Your task to perform on an android device: see creations saved in the google photos Image 0: 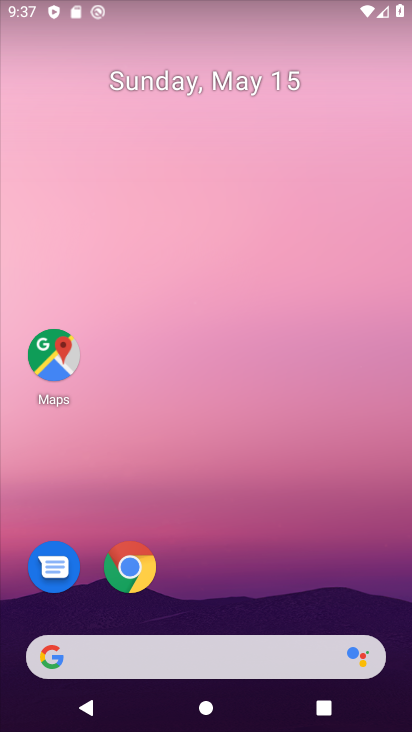
Step 0: drag from (270, 571) to (270, 37)
Your task to perform on an android device: see creations saved in the google photos Image 1: 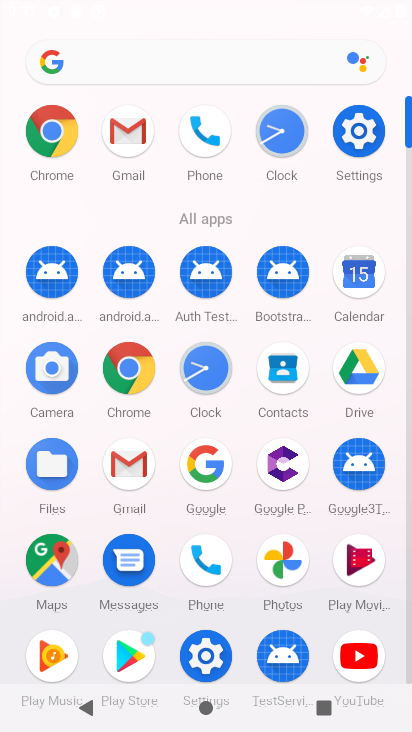
Step 1: click (286, 559)
Your task to perform on an android device: see creations saved in the google photos Image 2: 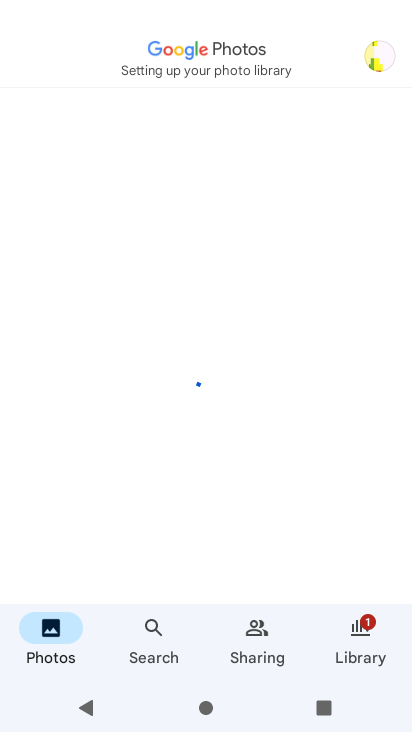
Step 2: click (152, 623)
Your task to perform on an android device: see creations saved in the google photos Image 3: 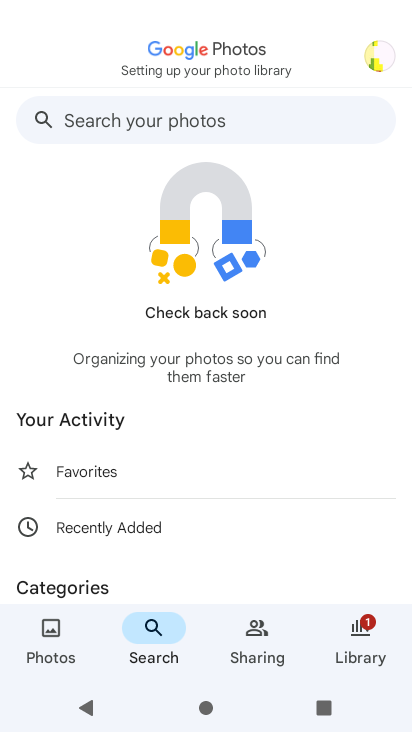
Step 3: click (173, 120)
Your task to perform on an android device: see creations saved in the google photos Image 4: 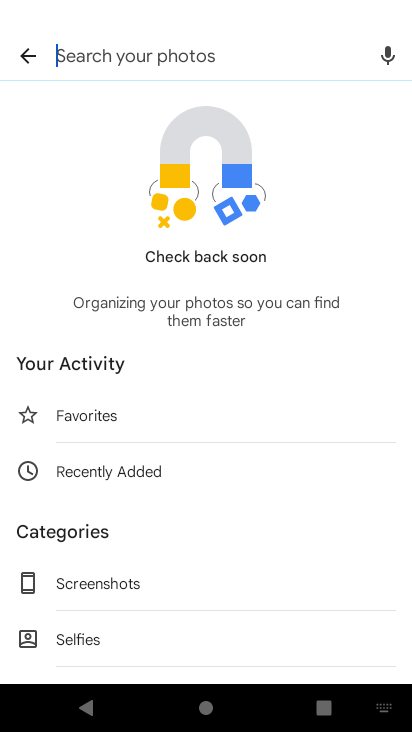
Step 4: drag from (181, 522) to (243, 65)
Your task to perform on an android device: see creations saved in the google photos Image 5: 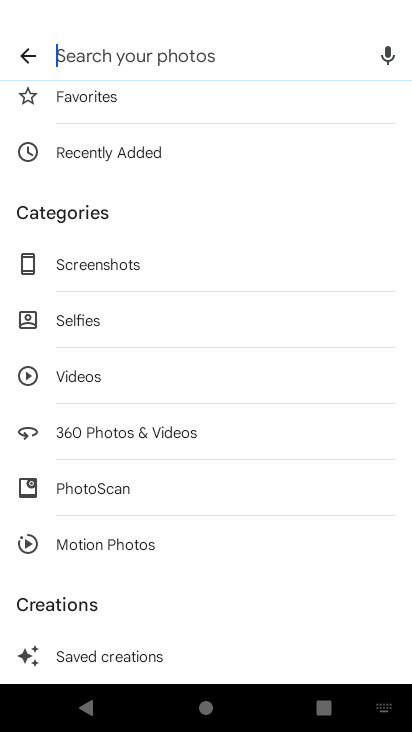
Step 5: click (103, 668)
Your task to perform on an android device: see creations saved in the google photos Image 6: 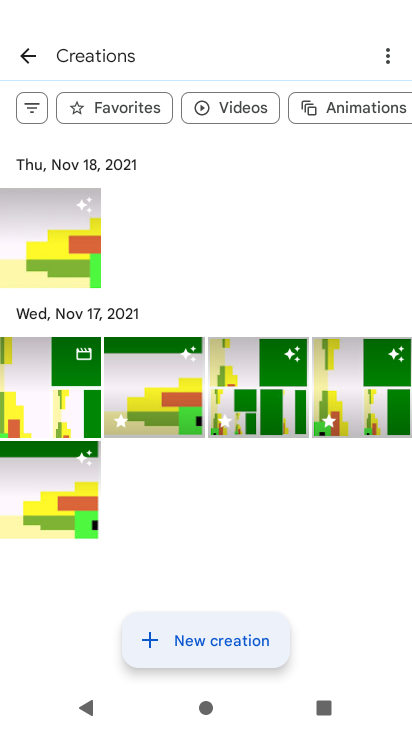
Step 6: task complete